Your task to perform on an android device: Open the calendar app, open the side menu, and click the "Day" option Image 0: 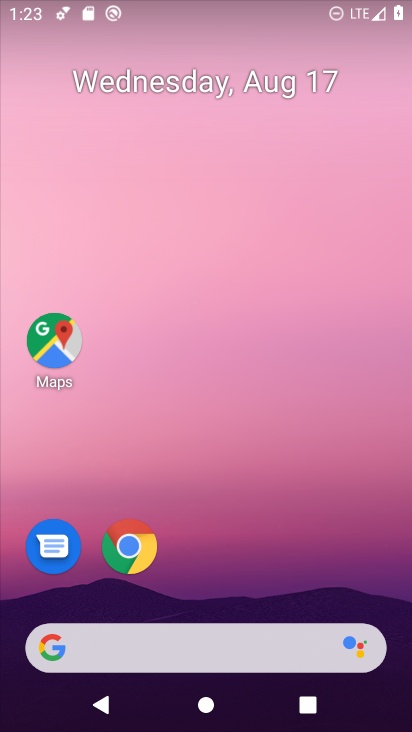
Step 0: drag from (241, 596) to (241, 197)
Your task to perform on an android device: Open the calendar app, open the side menu, and click the "Day" option Image 1: 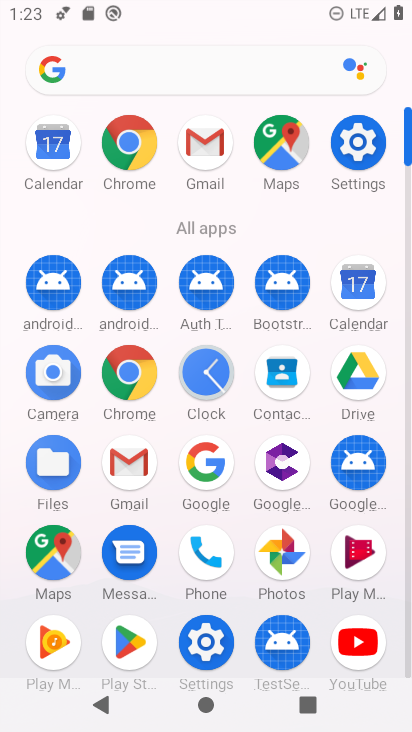
Step 1: click (361, 279)
Your task to perform on an android device: Open the calendar app, open the side menu, and click the "Day" option Image 2: 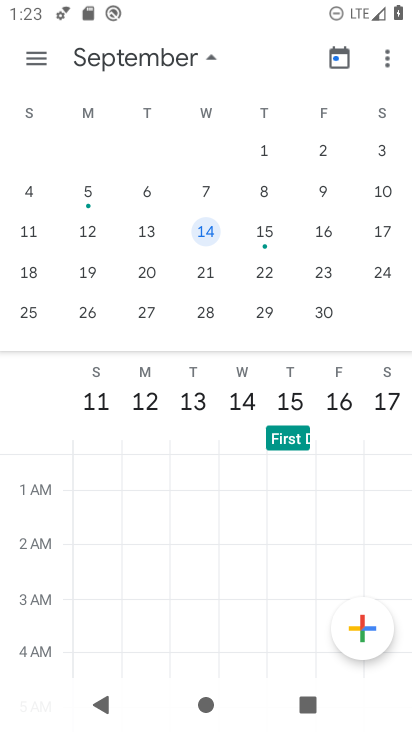
Step 2: click (39, 57)
Your task to perform on an android device: Open the calendar app, open the side menu, and click the "Day" option Image 3: 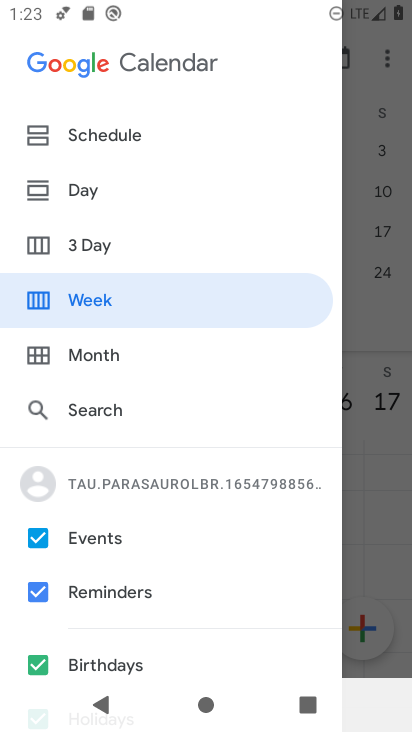
Step 3: click (82, 182)
Your task to perform on an android device: Open the calendar app, open the side menu, and click the "Day" option Image 4: 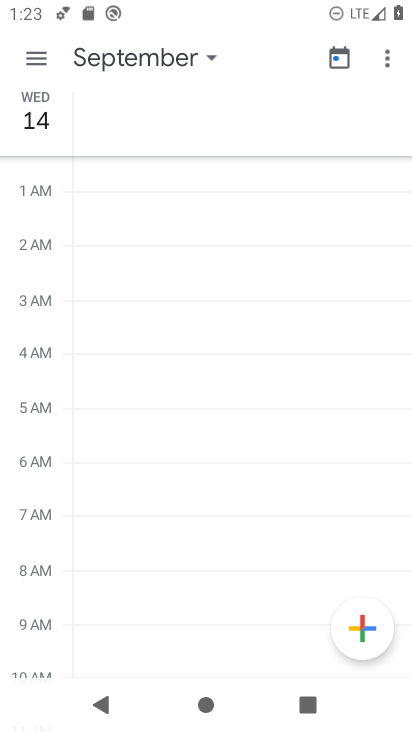
Step 4: task complete